Your task to perform on an android device: toggle notifications settings in the gmail app Image 0: 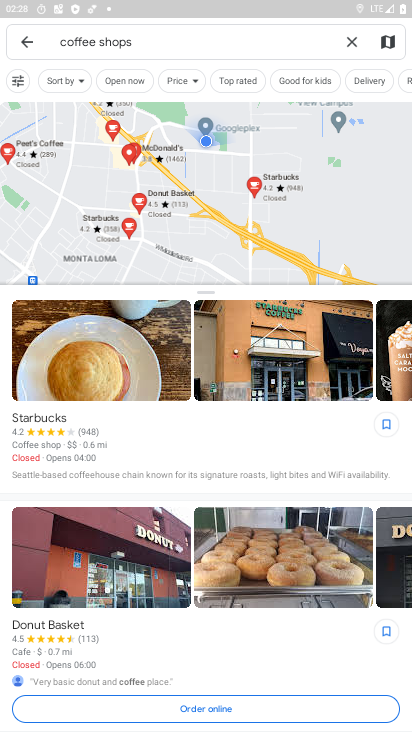
Step 0: press home button
Your task to perform on an android device: toggle notifications settings in the gmail app Image 1: 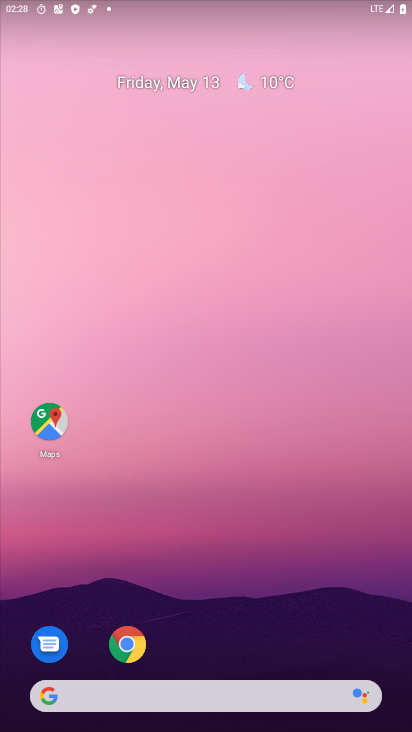
Step 1: drag from (274, 701) to (399, 383)
Your task to perform on an android device: toggle notifications settings in the gmail app Image 2: 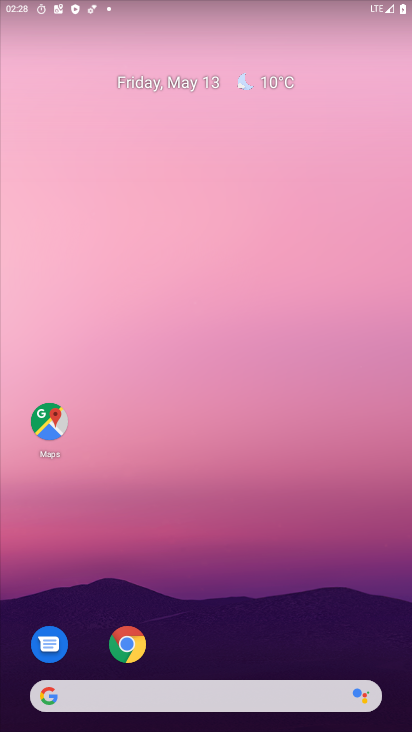
Step 2: click (135, 461)
Your task to perform on an android device: toggle notifications settings in the gmail app Image 3: 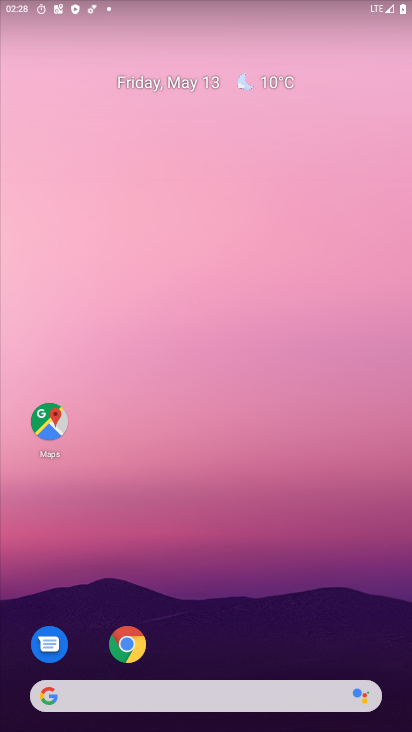
Step 3: click (265, 321)
Your task to perform on an android device: toggle notifications settings in the gmail app Image 4: 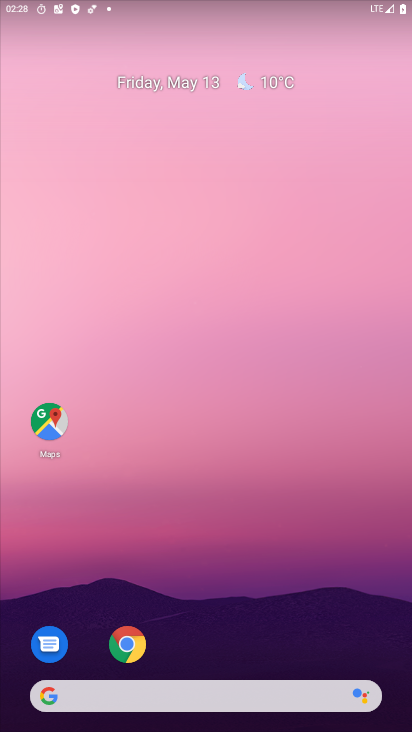
Step 4: drag from (238, 698) to (241, 33)
Your task to perform on an android device: toggle notifications settings in the gmail app Image 5: 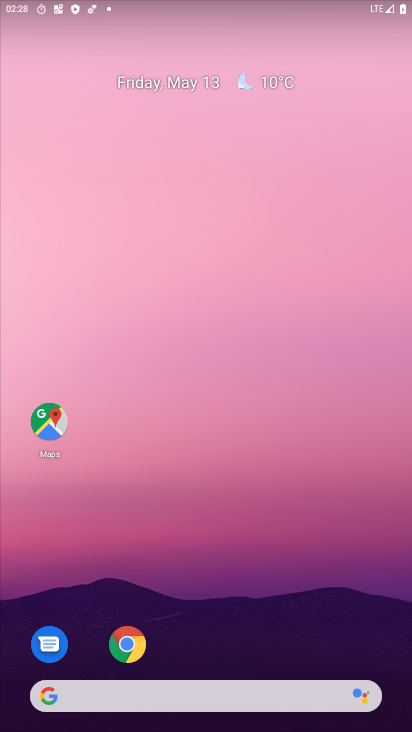
Step 5: drag from (220, 690) to (247, 4)
Your task to perform on an android device: toggle notifications settings in the gmail app Image 6: 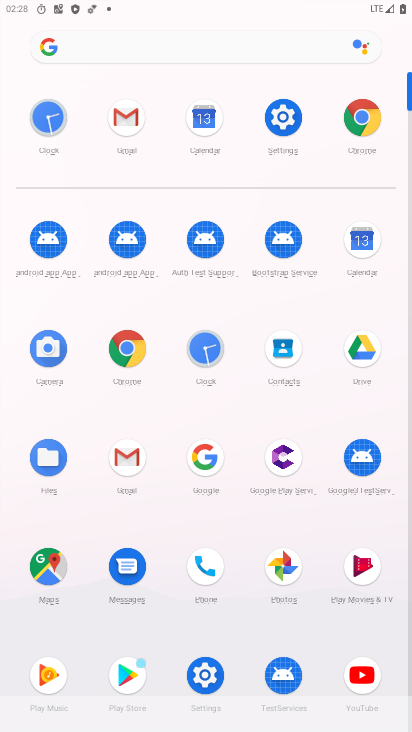
Step 6: click (122, 451)
Your task to perform on an android device: toggle notifications settings in the gmail app Image 7: 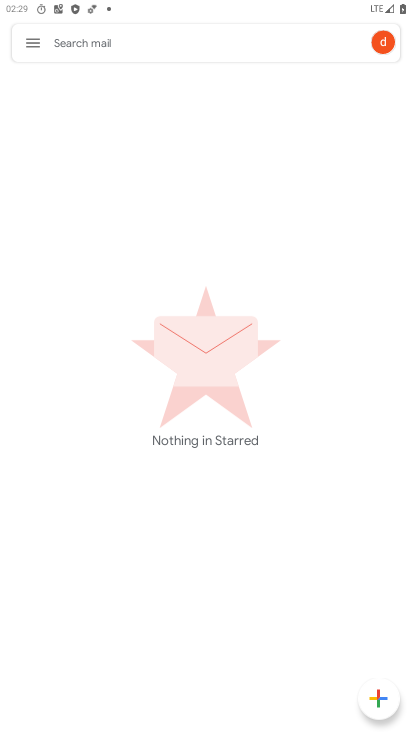
Step 7: click (25, 41)
Your task to perform on an android device: toggle notifications settings in the gmail app Image 8: 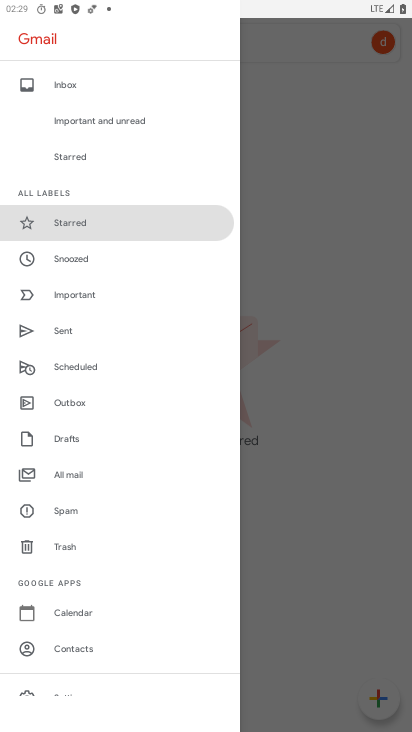
Step 8: drag from (76, 666) to (158, 34)
Your task to perform on an android device: toggle notifications settings in the gmail app Image 9: 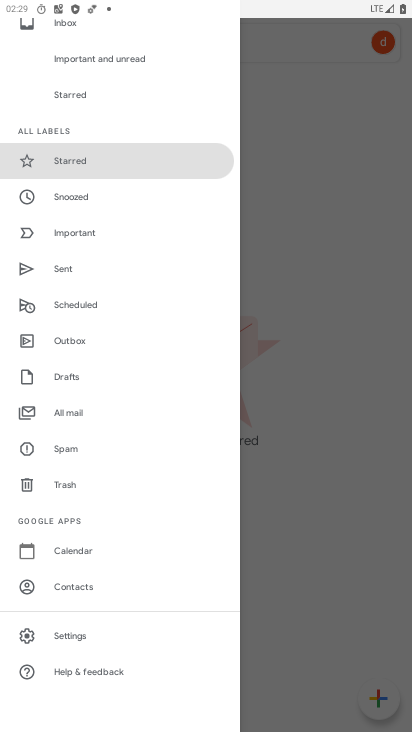
Step 9: click (64, 624)
Your task to perform on an android device: toggle notifications settings in the gmail app Image 10: 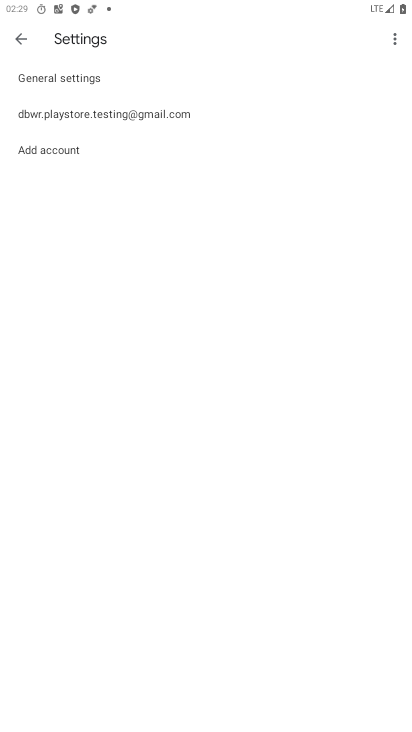
Step 10: click (158, 113)
Your task to perform on an android device: toggle notifications settings in the gmail app Image 11: 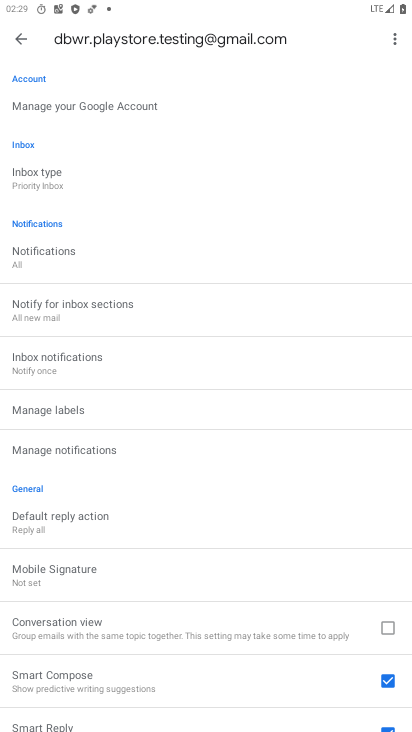
Step 11: click (108, 446)
Your task to perform on an android device: toggle notifications settings in the gmail app Image 12: 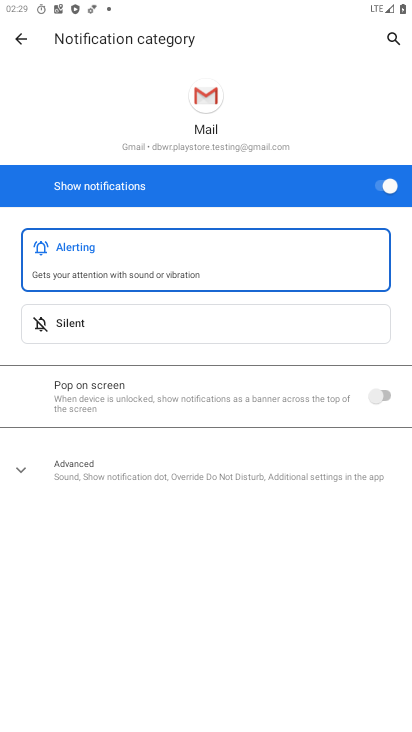
Step 12: click (388, 190)
Your task to perform on an android device: toggle notifications settings in the gmail app Image 13: 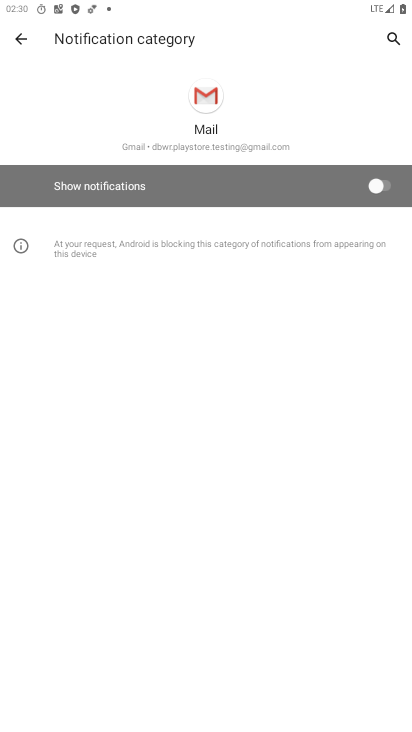
Step 13: task complete